Your task to perform on an android device: open the mobile data screen to see how much data has been used Image 0: 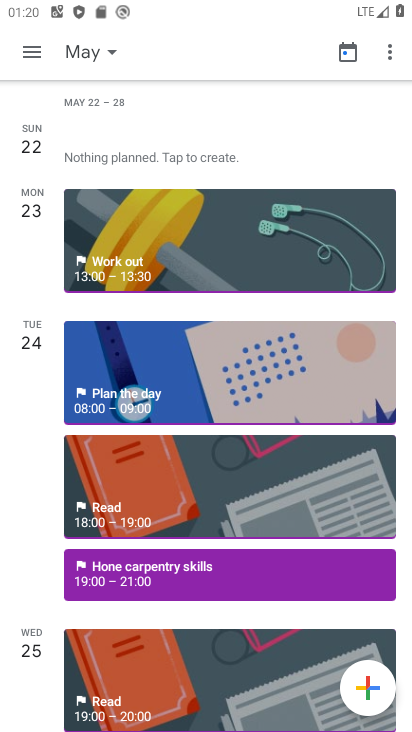
Step 0: press home button
Your task to perform on an android device: open the mobile data screen to see how much data has been used Image 1: 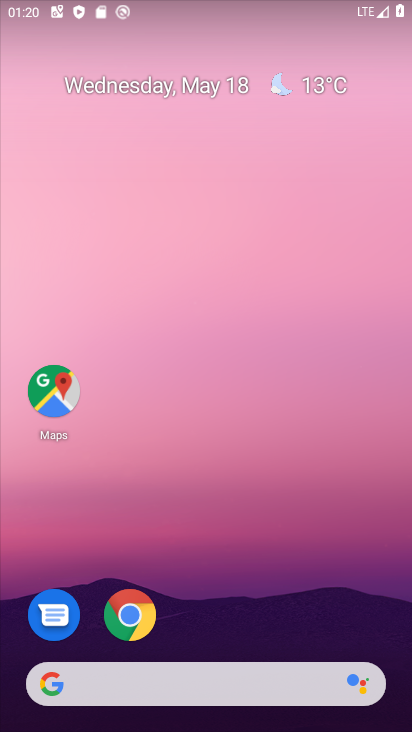
Step 1: drag from (216, 690) to (316, 63)
Your task to perform on an android device: open the mobile data screen to see how much data has been used Image 2: 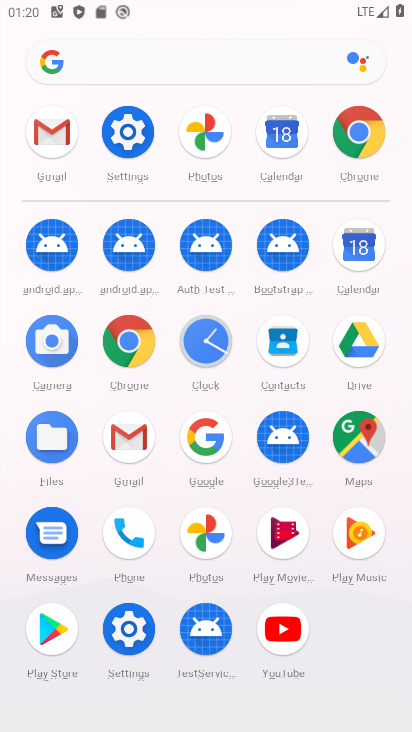
Step 2: click (133, 119)
Your task to perform on an android device: open the mobile data screen to see how much data has been used Image 3: 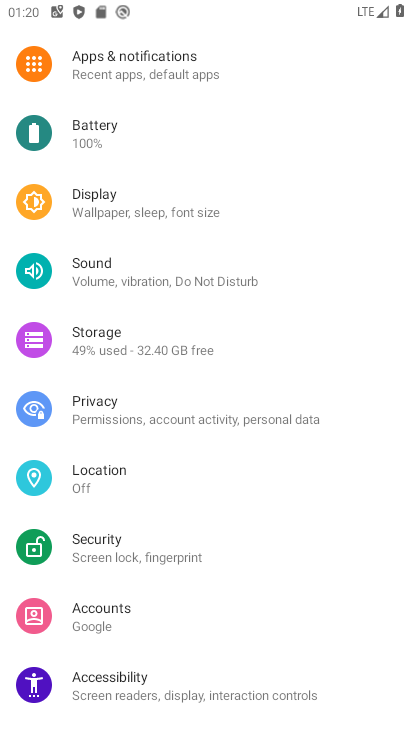
Step 3: drag from (308, 119) to (210, 510)
Your task to perform on an android device: open the mobile data screen to see how much data has been used Image 4: 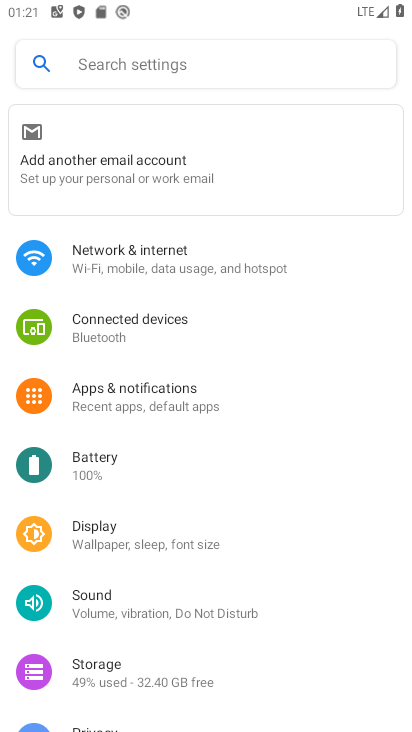
Step 4: click (170, 255)
Your task to perform on an android device: open the mobile data screen to see how much data has been used Image 5: 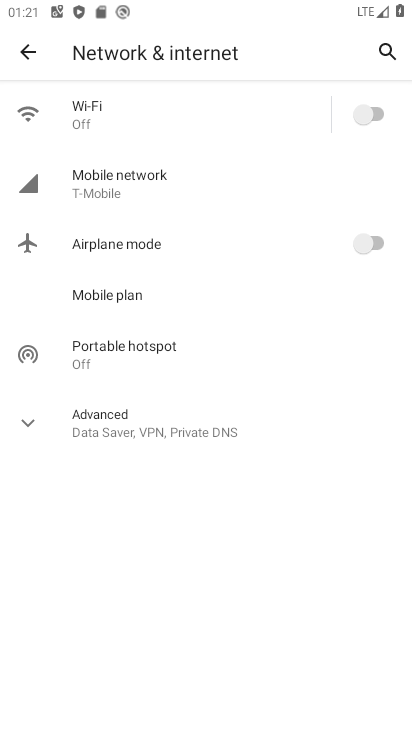
Step 5: click (125, 182)
Your task to perform on an android device: open the mobile data screen to see how much data has been used Image 6: 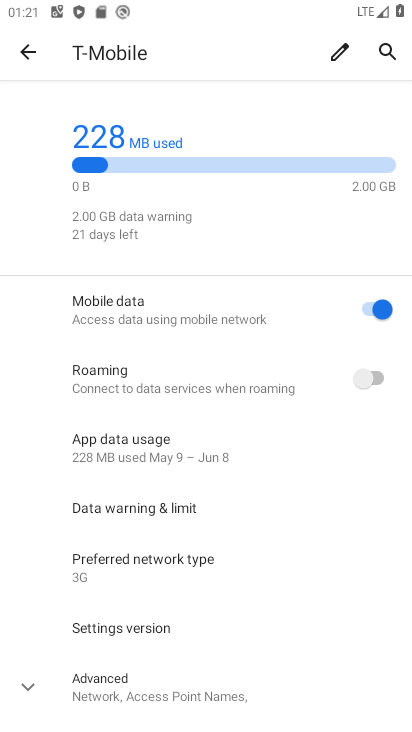
Step 6: task complete